Your task to perform on an android device: turn notification dots off Image 0: 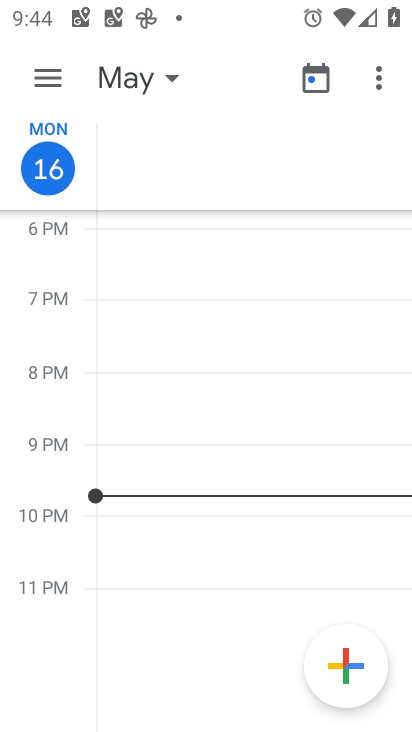
Step 0: press home button
Your task to perform on an android device: turn notification dots off Image 1: 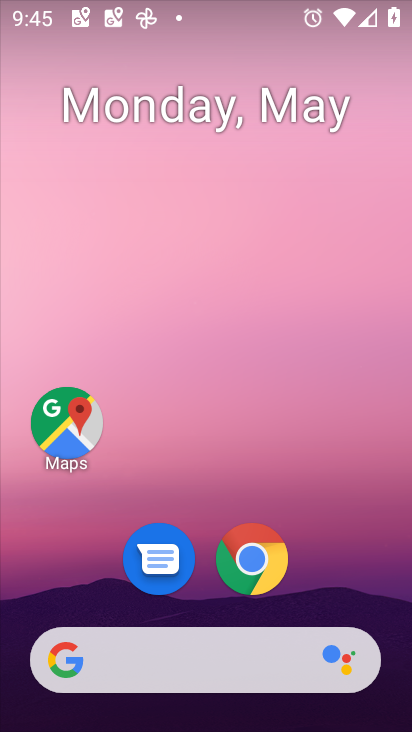
Step 1: drag from (382, 652) to (305, 87)
Your task to perform on an android device: turn notification dots off Image 2: 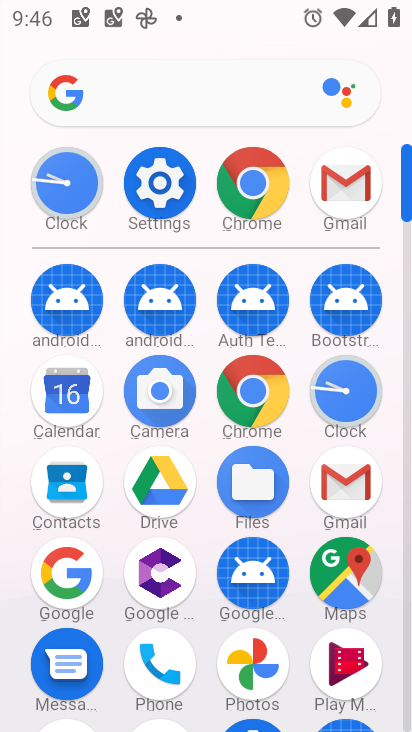
Step 2: click (148, 186)
Your task to perform on an android device: turn notification dots off Image 3: 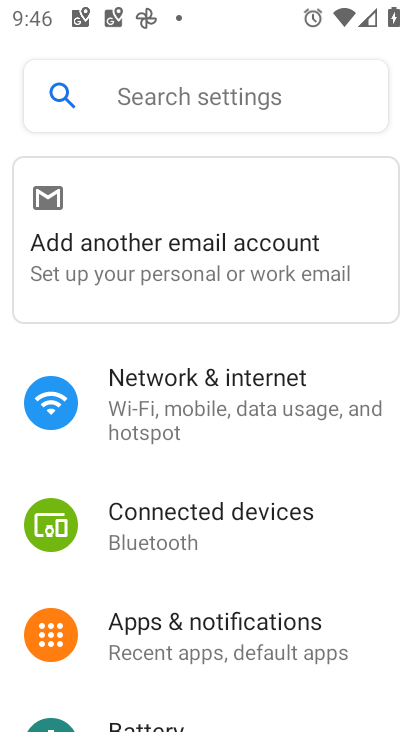
Step 3: click (232, 633)
Your task to perform on an android device: turn notification dots off Image 4: 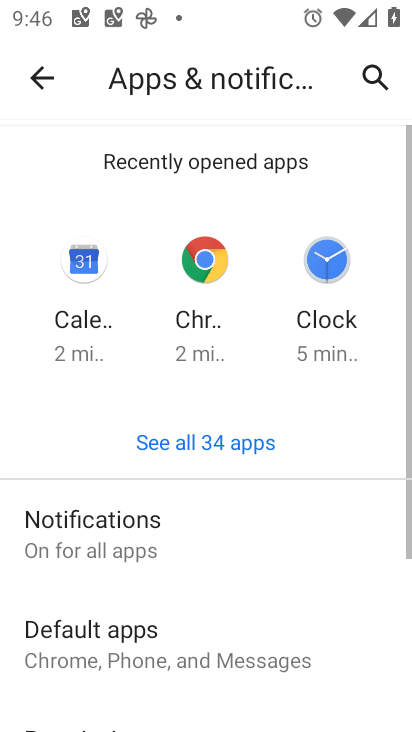
Step 4: click (192, 558)
Your task to perform on an android device: turn notification dots off Image 5: 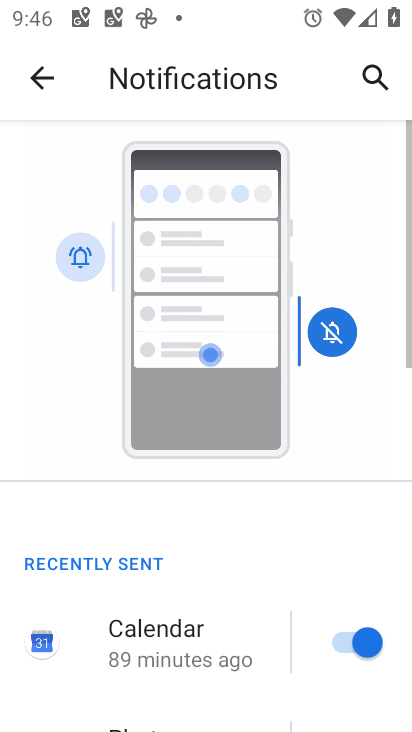
Step 5: drag from (178, 659) to (255, 89)
Your task to perform on an android device: turn notification dots off Image 6: 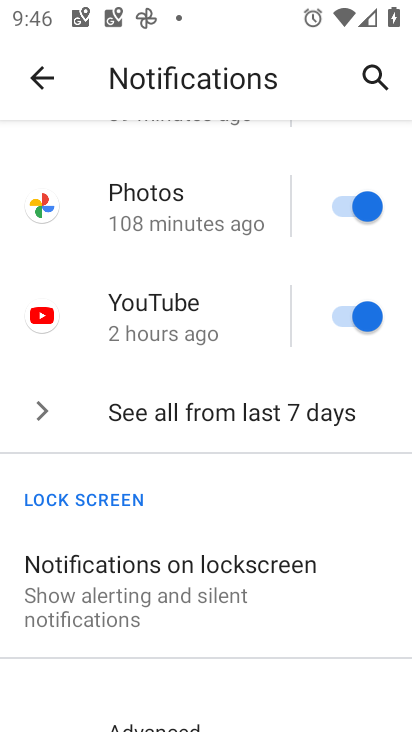
Step 6: drag from (187, 645) to (218, 306)
Your task to perform on an android device: turn notification dots off Image 7: 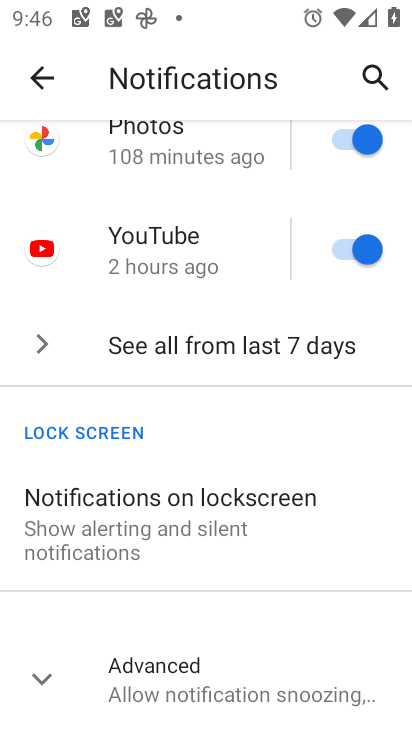
Step 7: click (119, 667)
Your task to perform on an android device: turn notification dots off Image 8: 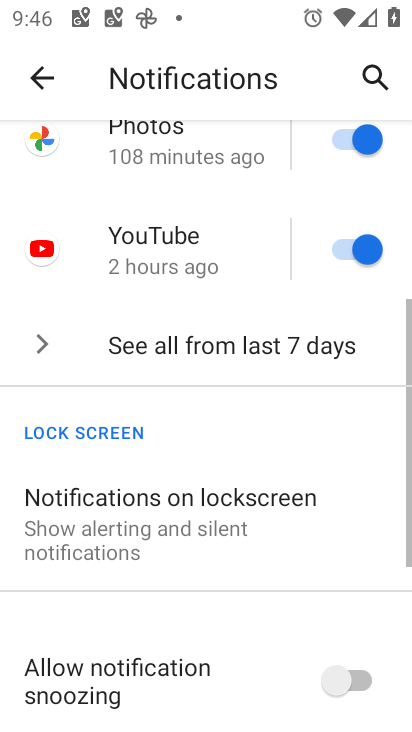
Step 8: task complete